Your task to perform on an android device: Go to Maps Image 0: 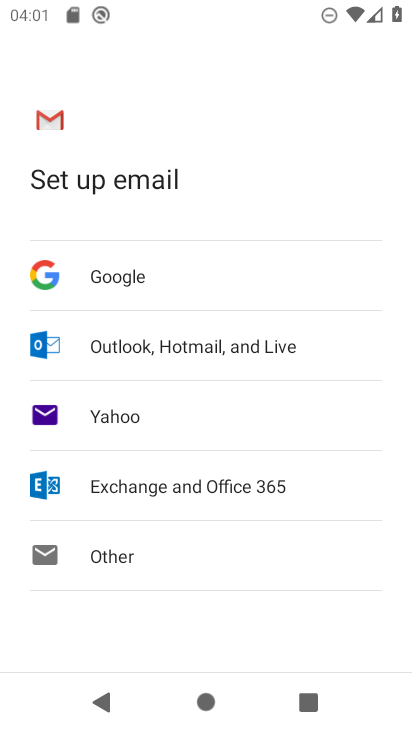
Step 0: press home button
Your task to perform on an android device: Go to Maps Image 1: 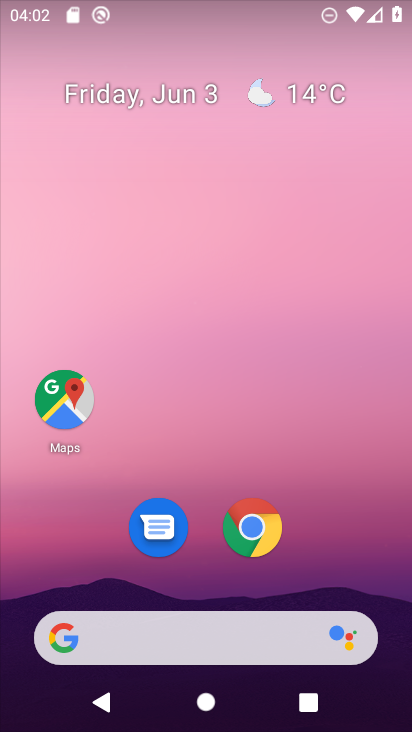
Step 1: click (63, 402)
Your task to perform on an android device: Go to Maps Image 2: 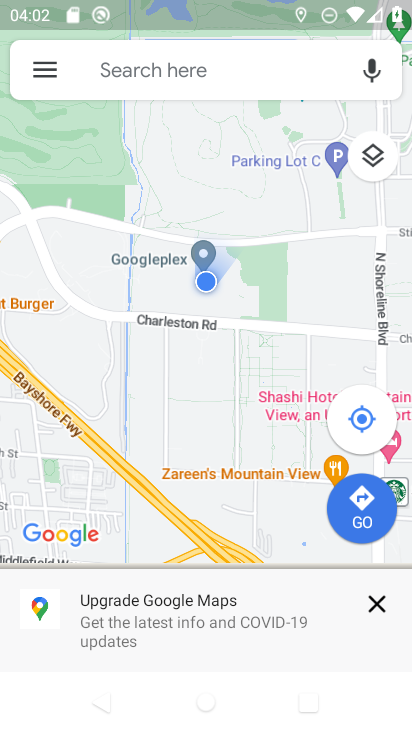
Step 2: task complete